Your task to perform on an android device: check google app version Image 0: 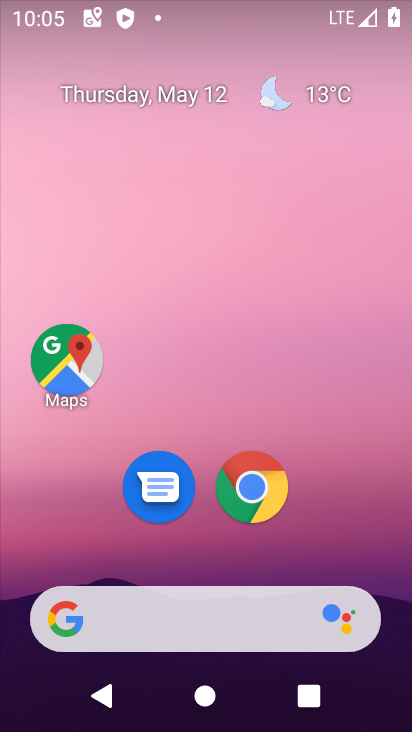
Step 0: drag from (322, 545) to (326, 19)
Your task to perform on an android device: check google app version Image 1: 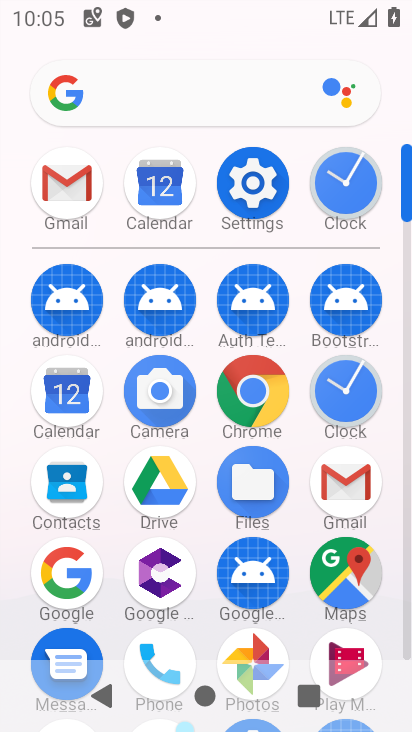
Step 1: click (73, 583)
Your task to perform on an android device: check google app version Image 2: 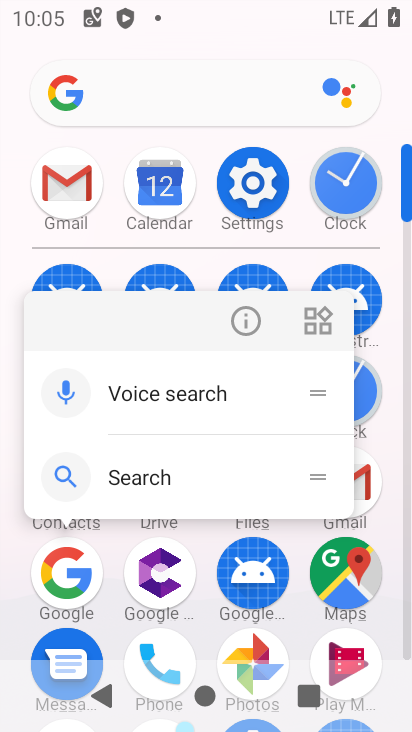
Step 2: click (238, 325)
Your task to perform on an android device: check google app version Image 3: 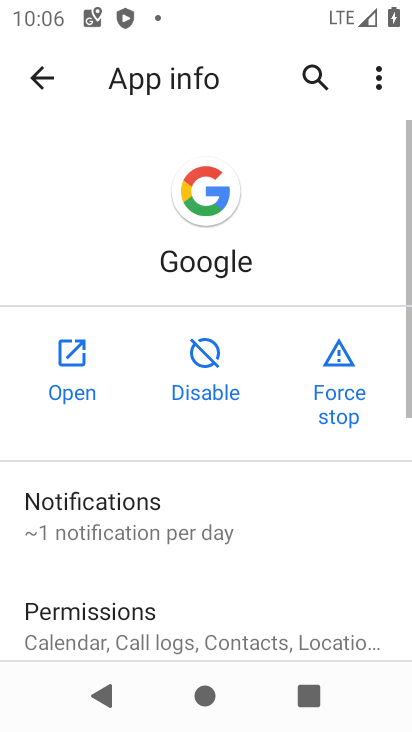
Step 3: drag from (214, 127) to (206, 46)
Your task to perform on an android device: check google app version Image 4: 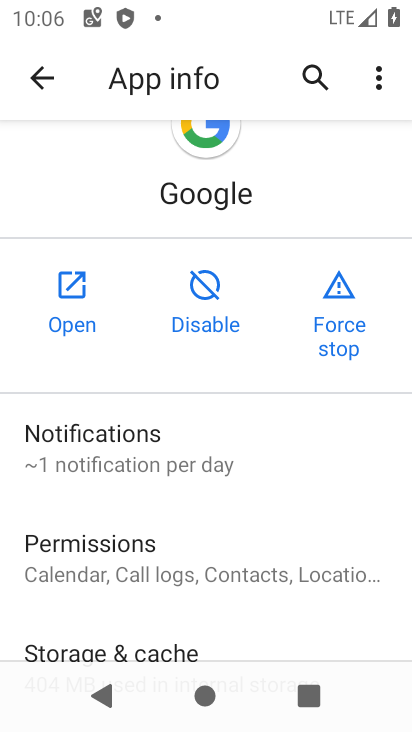
Step 4: drag from (253, 531) to (218, 77)
Your task to perform on an android device: check google app version Image 5: 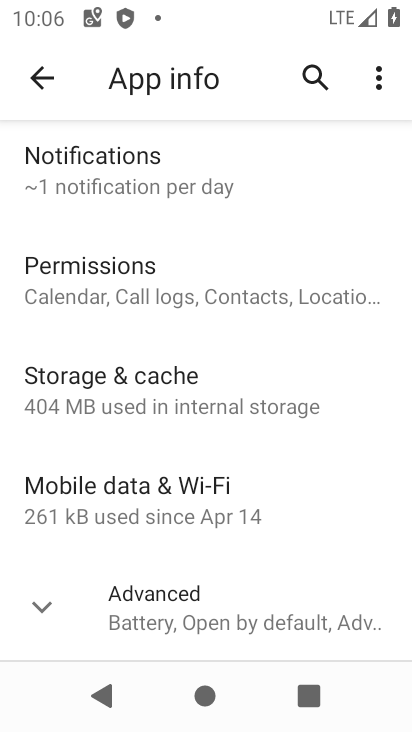
Step 5: drag from (214, 505) to (188, 185)
Your task to perform on an android device: check google app version Image 6: 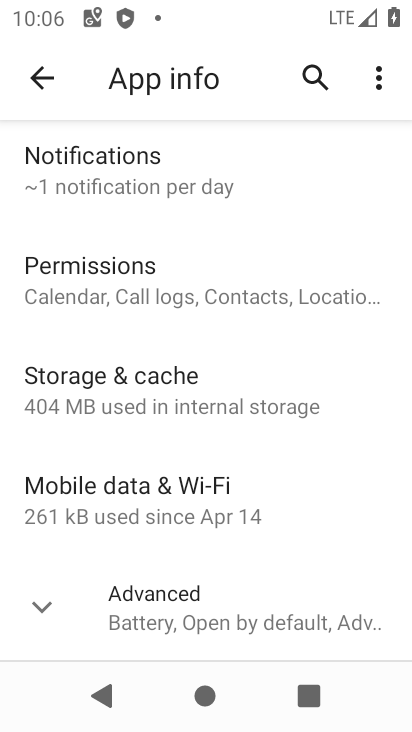
Step 6: click (33, 617)
Your task to perform on an android device: check google app version Image 7: 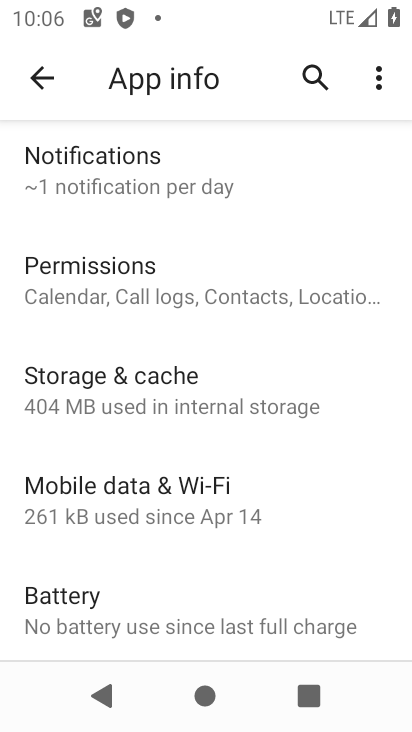
Step 7: task complete